Your task to perform on an android device: Show me popular videos on Youtube Image 0: 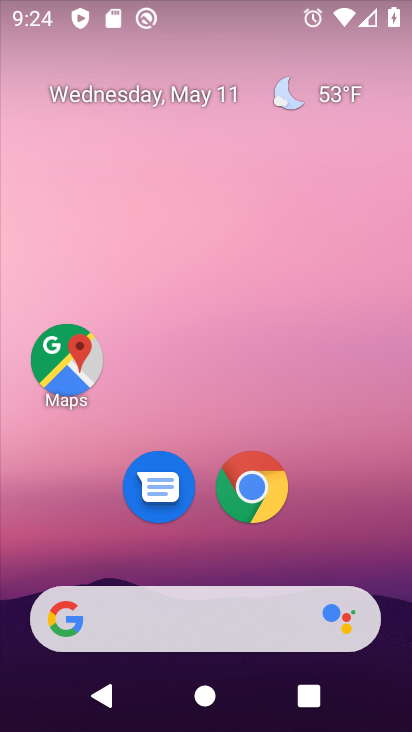
Step 0: drag from (164, 555) to (158, 223)
Your task to perform on an android device: Show me popular videos on Youtube Image 1: 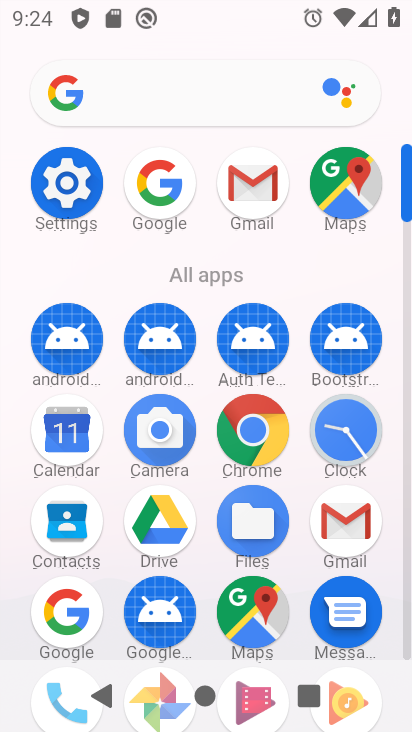
Step 1: drag from (229, 551) to (292, 202)
Your task to perform on an android device: Show me popular videos on Youtube Image 2: 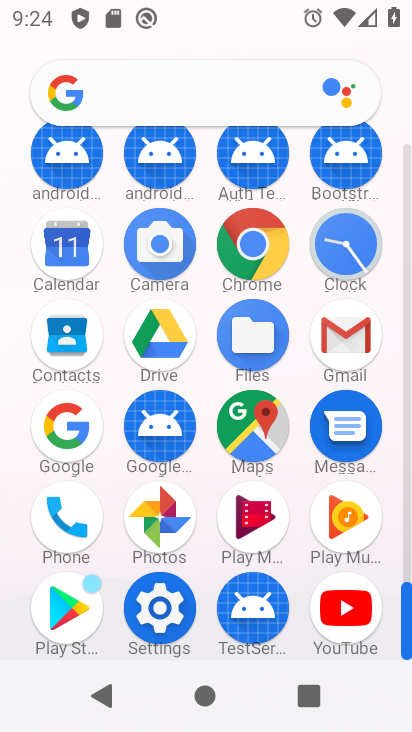
Step 2: click (338, 569)
Your task to perform on an android device: Show me popular videos on Youtube Image 3: 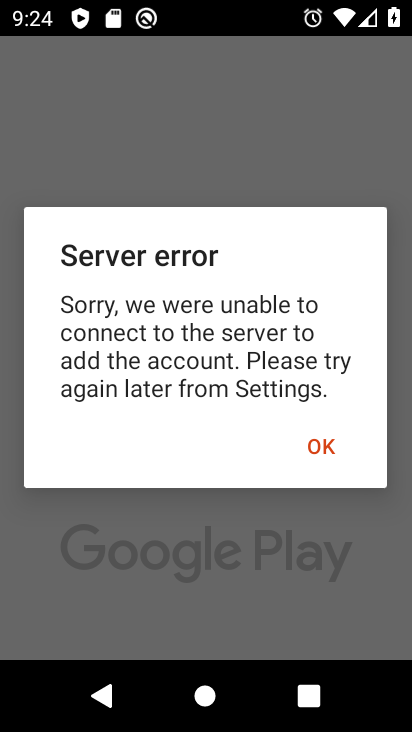
Step 3: click (326, 435)
Your task to perform on an android device: Show me popular videos on Youtube Image 4: 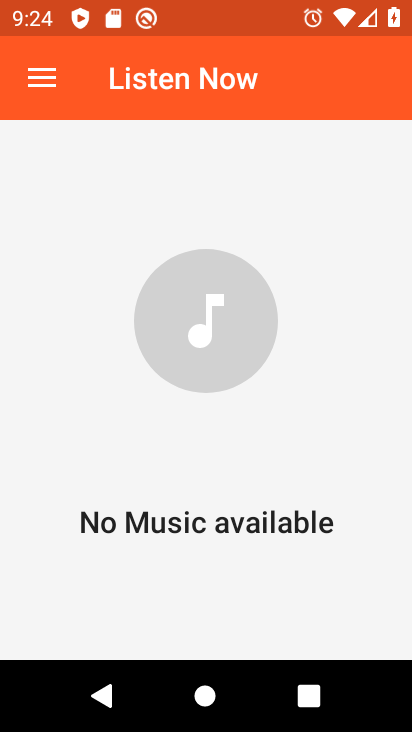
Step 4: press home button
Your task to perform on an android device: Show me popular videos on Youtube Image 5: 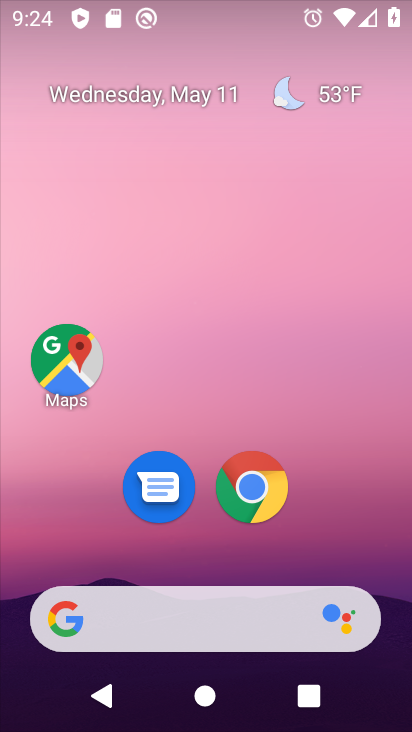
Step 5: drag from (216, 552) to (241, 103)
Your task to perform on an android device: Show me popular videos on Youtube Image 6: 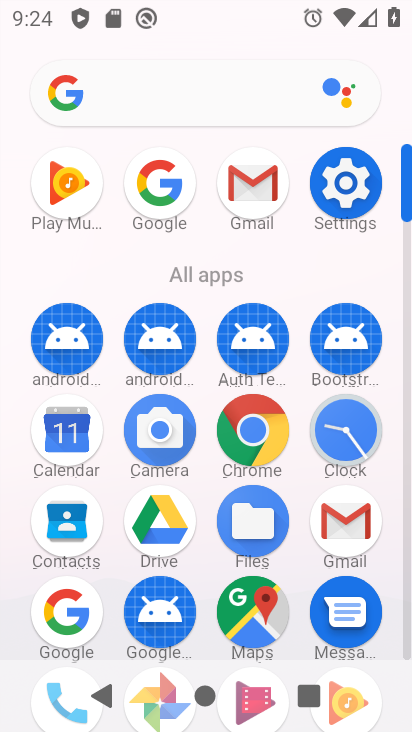
Step 6: drag from (285, 620) to (289, 246)
Your task to perform on an android device: Show me popular videos on Youtube Image 7: 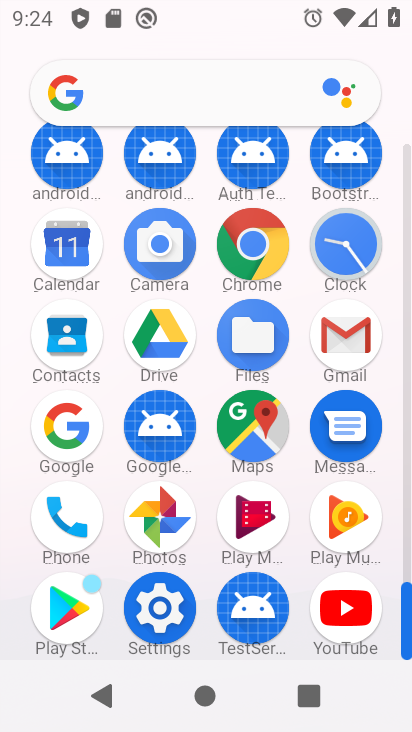
Step 7: click (330, 610)
Your task to perform on an android device: Show me popular videos on Youtube Image 8: 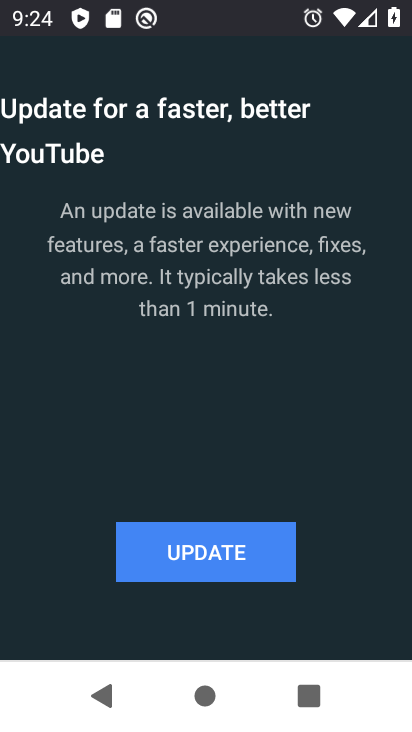
Step 8: click (168, 536)
Your task to perform on an android device: Show me popular videos on Youtube Image 9: 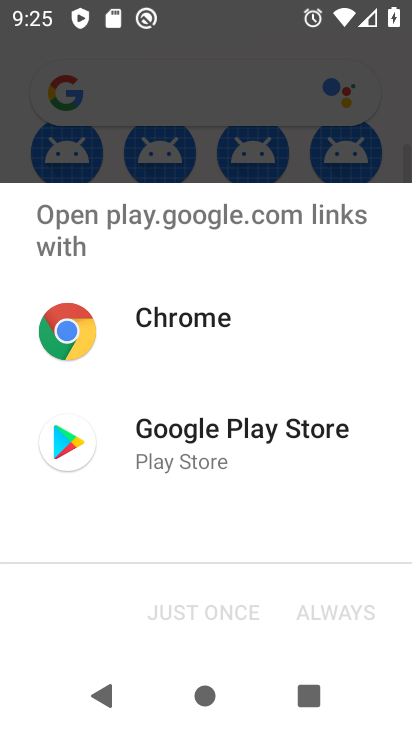
Step 9: click (189, 441)
Your task to perform on an android device: Show me popular videos on Youtube Image 10: 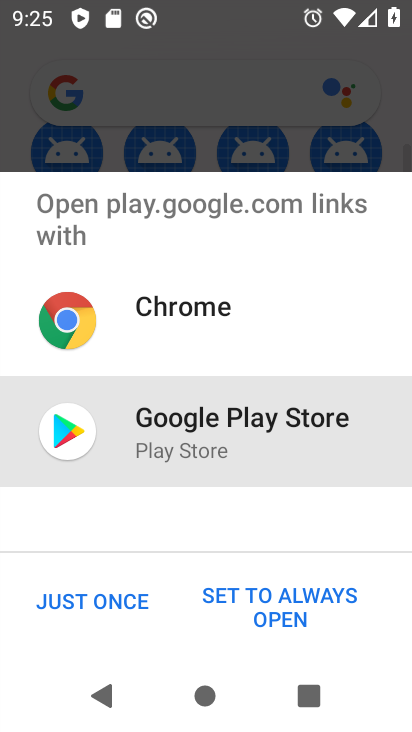
Step 10: click (119, 608)
Your task to perform on an android device: Show me popular videos on Youtube Image 11: 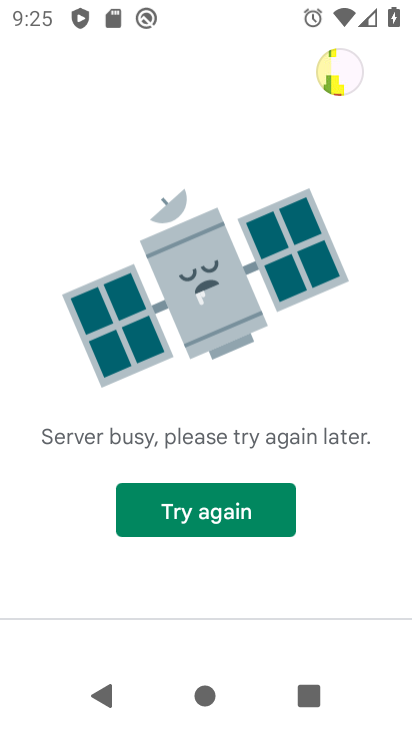
Step 11: task complete